Your task to perform on an android device: empty trash in google photos Image 0: 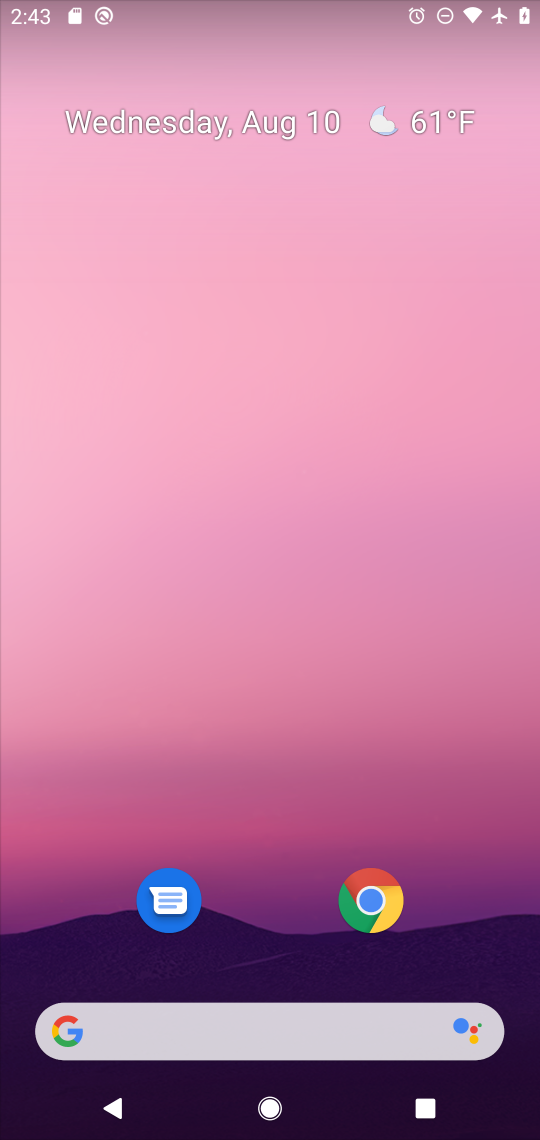
Step 0: drag from (292, 839) to (307, 17)
Your task to perform on an android device: empty trash in google photos Image 1: 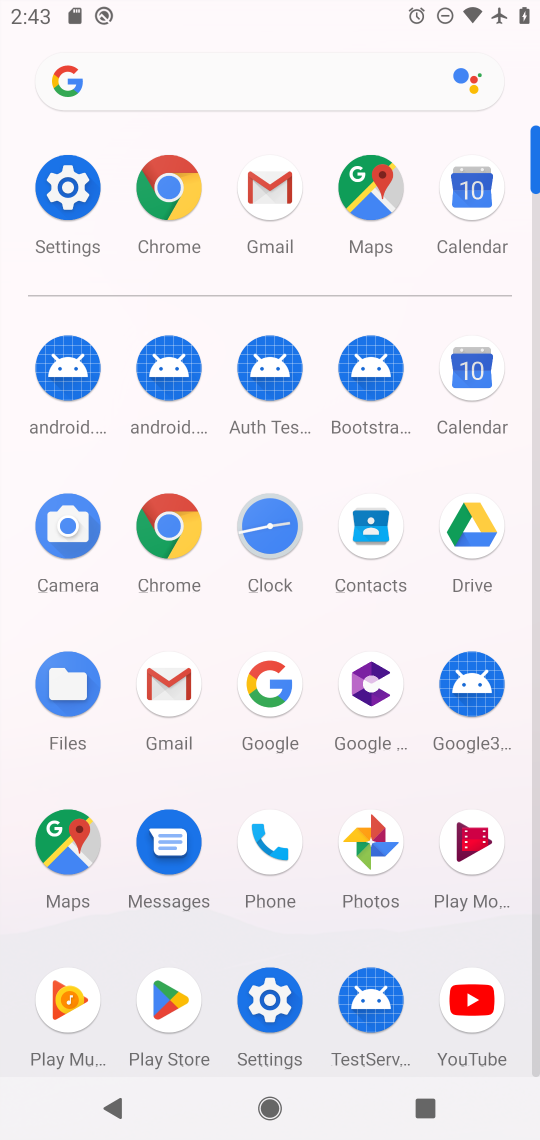
Step 1: click (368, 841)
Your task to perform on an android device: empty trash in google photos Image 2: 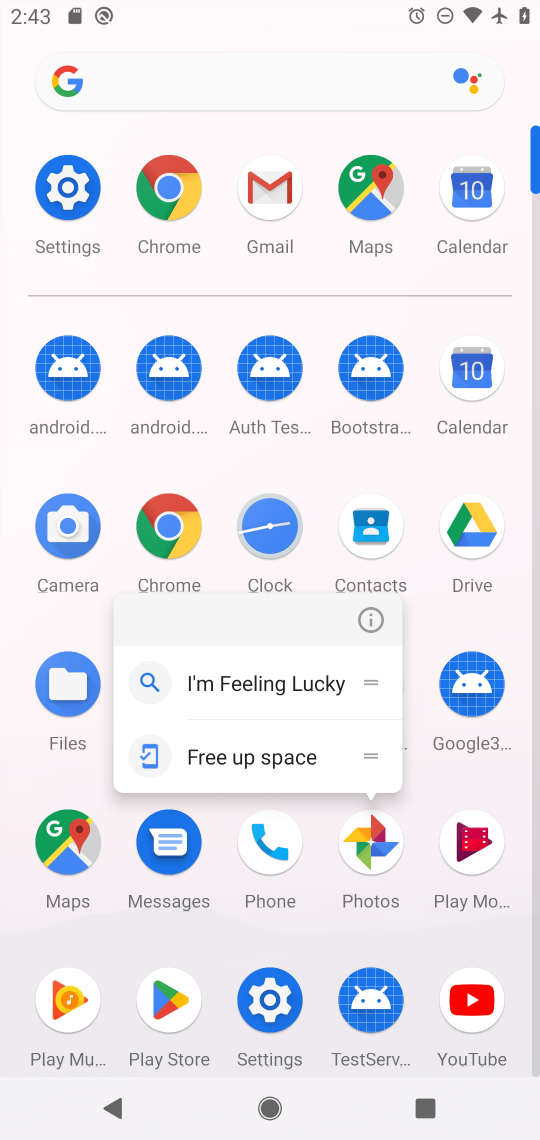
Step 2: click (368, 843)
Your task to perform on an android device: empty trash in google photos Image 3: 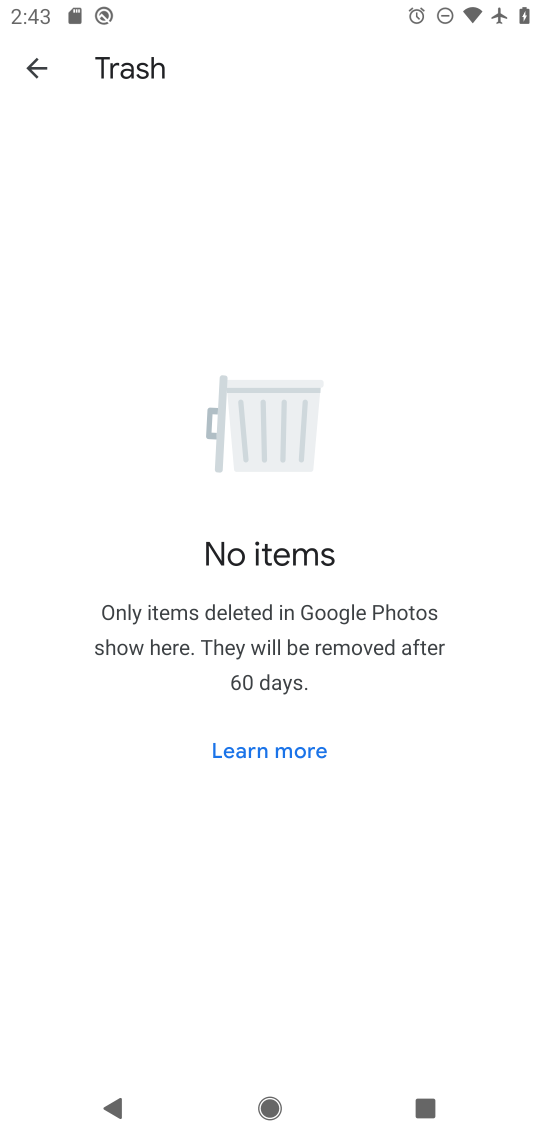
Step 3: task complete